Your task to perform on an android device: toggle notifications settings in the gmail app Image 0: 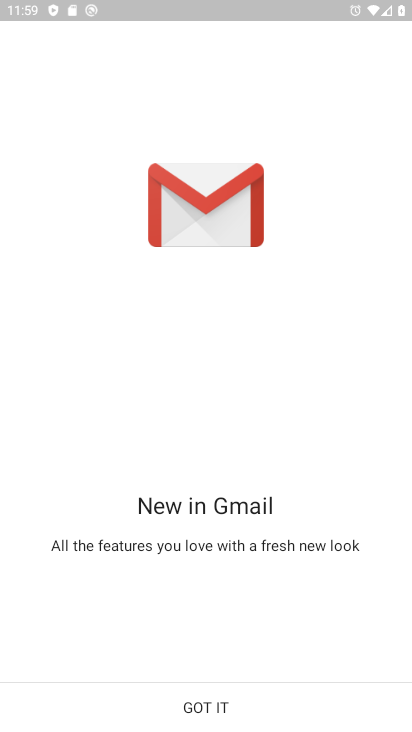
Step 0: press home button
Your task to perform on an android device: toggle notifications settings in the gmail app Image 1: 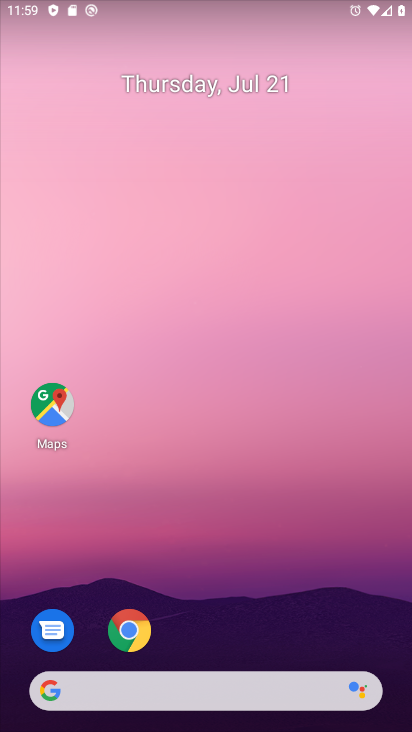
Step 1: drag from (206, 629) to (63, 143)
Your task to perform on an android device: toggle notifications settings in the gmail app Image 2: 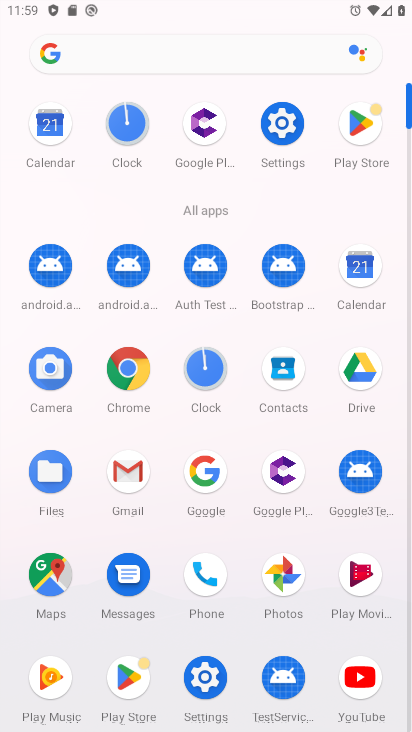
Step 2: click (127, 466)
Your task to perform on an android device: toggle notifications settings in the gmail app Image 3: 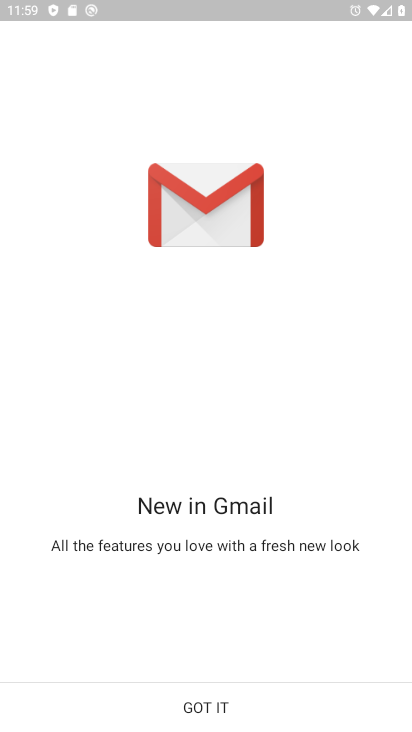
Step 3: click (204, 700)
Your task to perform on an android device: toggle notifications settings in the gmail app Image 4: 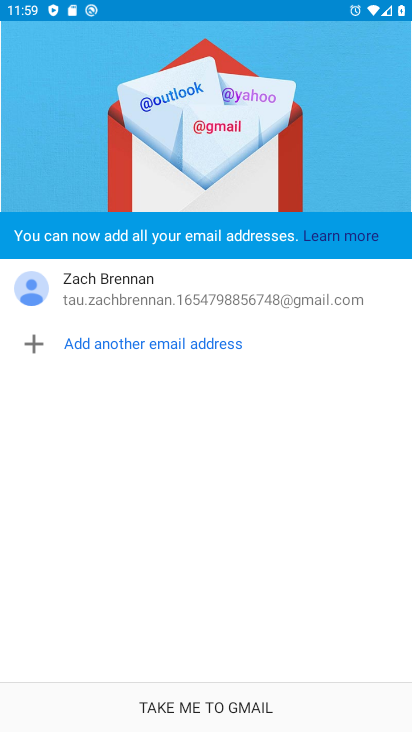
Step 4: click (204, 700)
Your task to perform on an android device: toggle notifications settings in the gmail app Image 5: 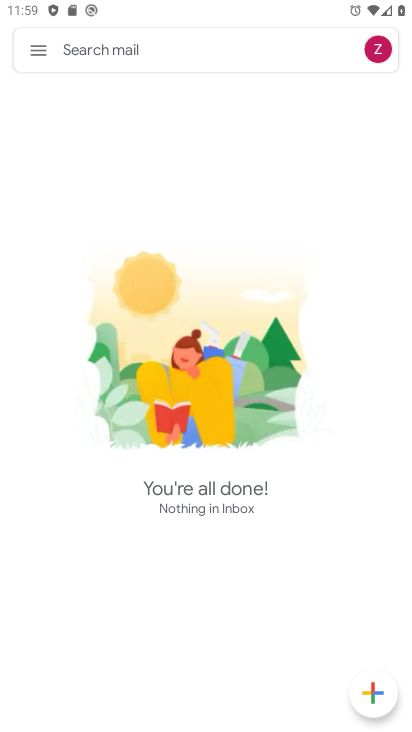
Step 5: click (38, 56)
Your task to perform on an android device: toggle notifications settings in the gmail app Image 6: 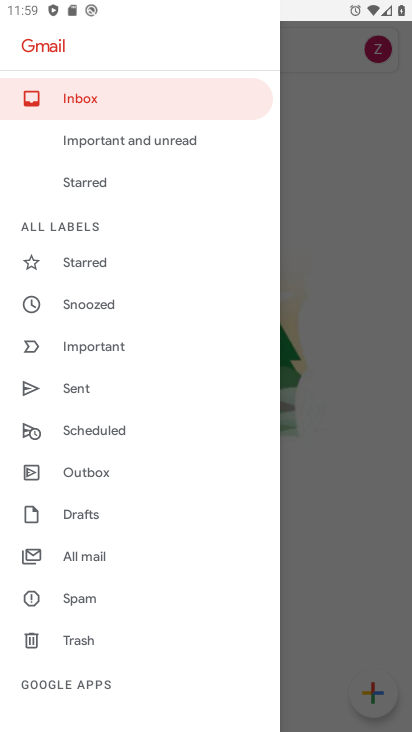
Step 6: drag from (154, 696) to (161, 57)
Your task to perform on an android device: toggle notifications settings in the gmail app Image 7: 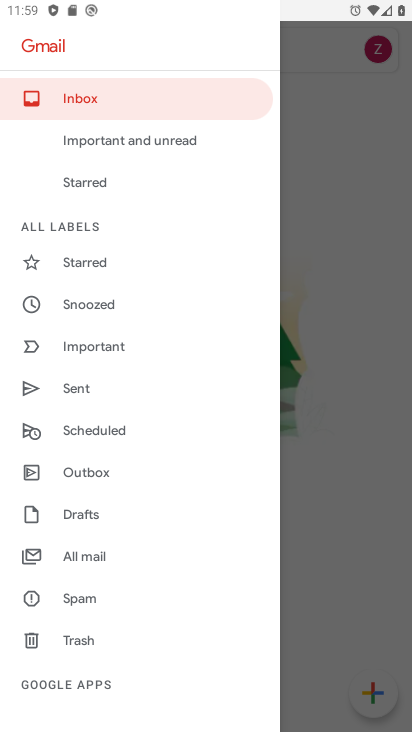
Step 7: drag from (90, 506) to (164, 698)
Your task to perform on an android device: toggle notifications settings in the gmail app Image 8: 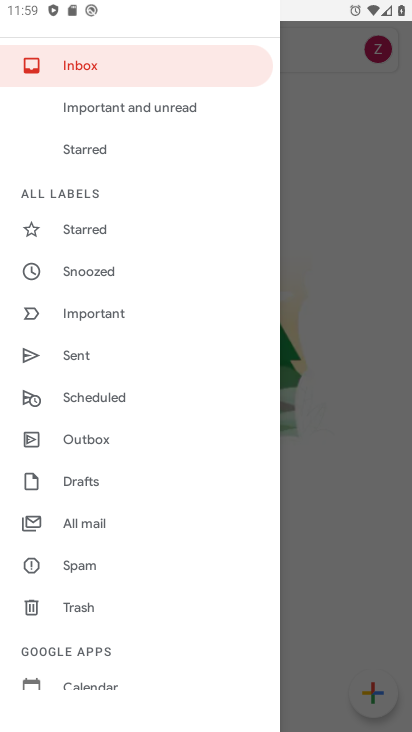
Step 8: drag from (205, 608) to (186, 281)
Your task to perform on an android device: toggle notifications settings in the gmail app Image 9: 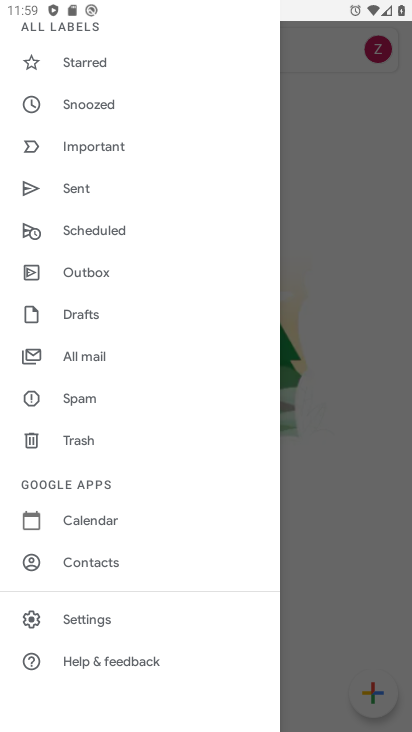
Step 9: click (83, 619)
Your task to perform on an android device: toggle notifications settings in the gmail app Image 10: 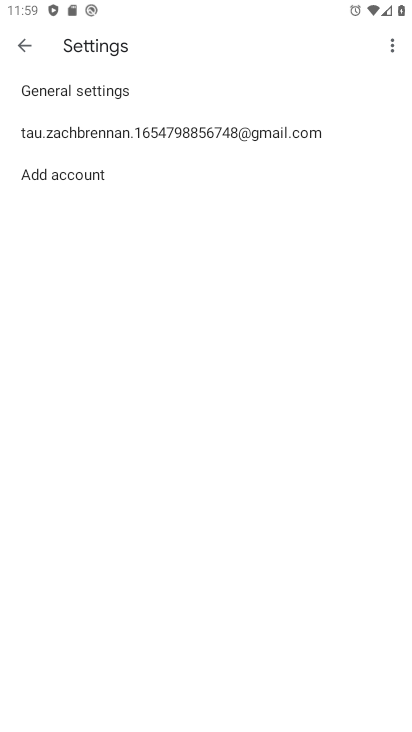
Step 10: click (206, 131)
Your task to perform on an android device: toggle notifications settings in the gmail app Image 11: 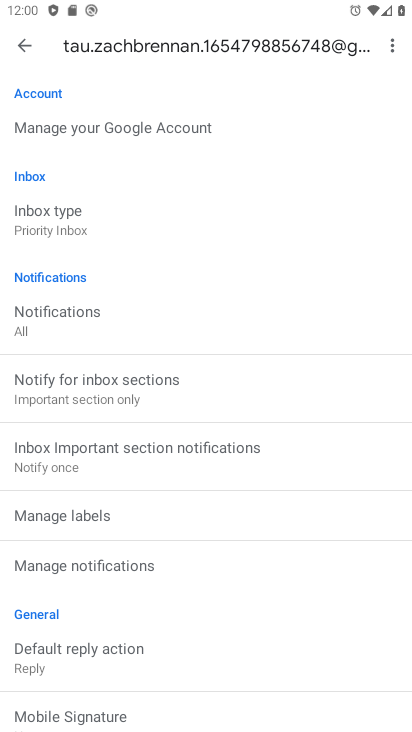
Step 11: click (47, 322)
Your task to perform on an android device: toggle notifications settings in the gmail app Image 12: 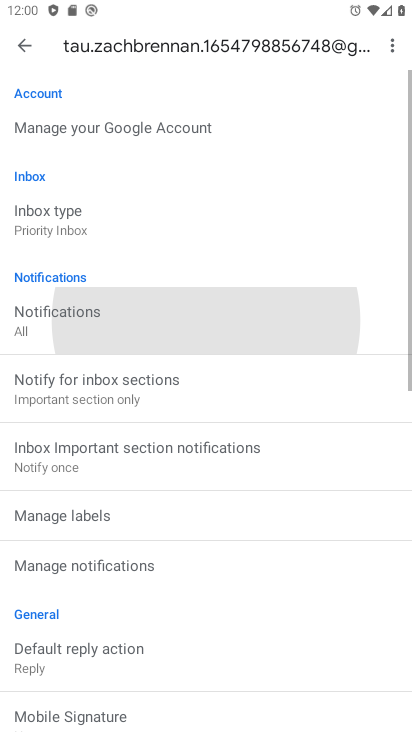
Step 12: click (47, 322)
Your task to perform on an android device: toggle notifications settings in the gmail app Image 13: 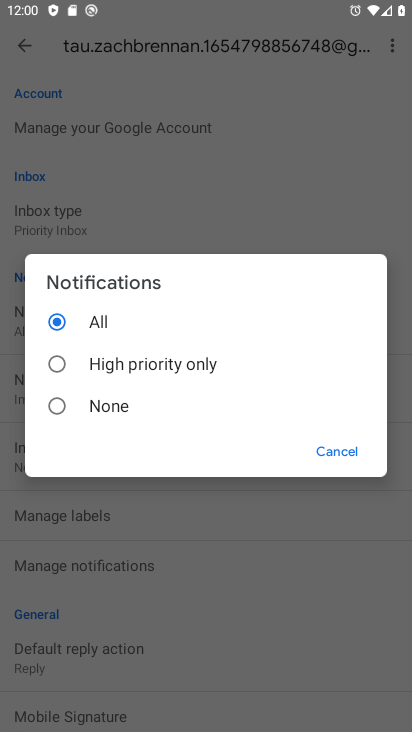
Step 13: click (61, 366)
Your task to perform on an android device: toggle notifications settings in the gmail app Image 14: 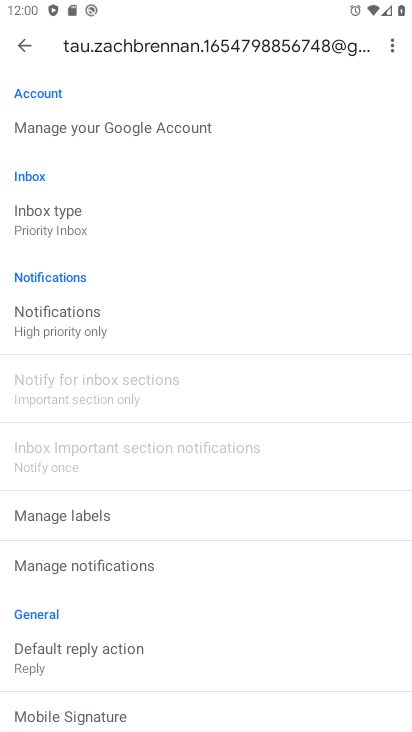
Step 14: task complete